Your task to perform on an android device: Open settings Image 0: 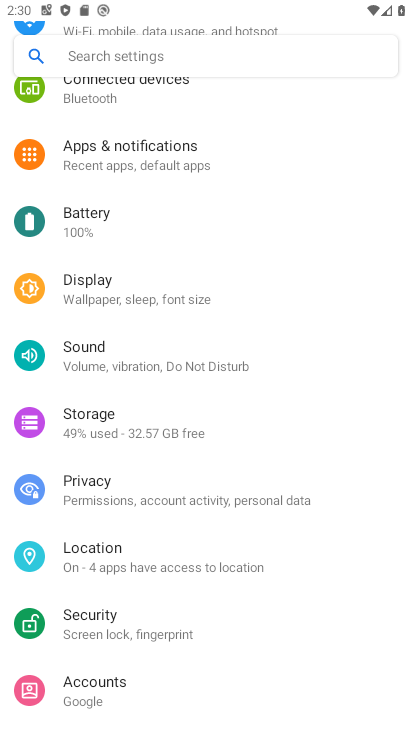
Step 0: task complete